Your task to perform on an android device: clear history in the chrome app Image 0: 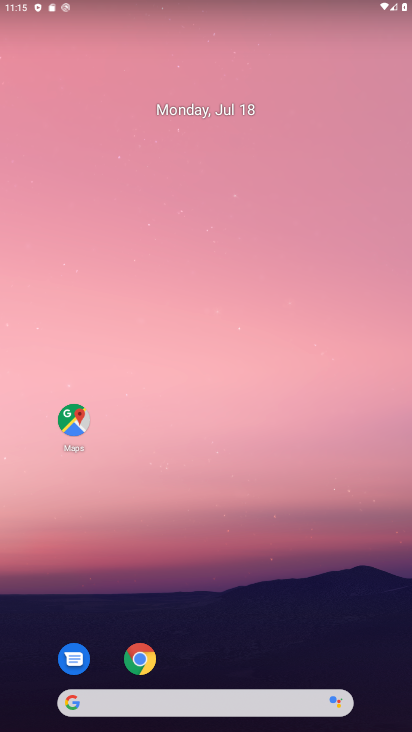
Step 0: drag from (335, 661) to (277, 189)
Your task to perform on an android device: clear history in the chrome app Image 1: 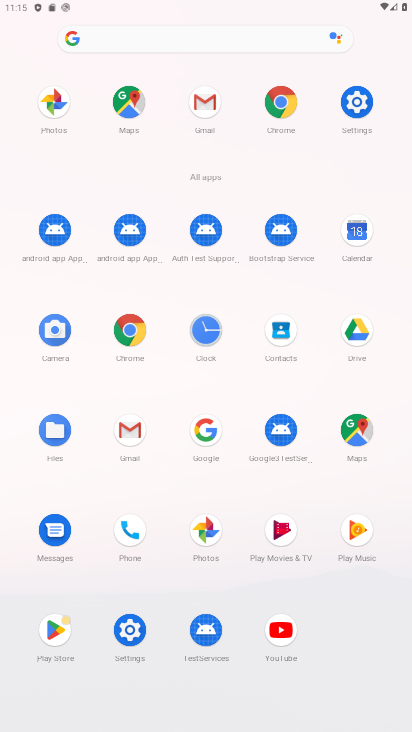
Step 1: click (279, 104)
Your task to perform on an android device: clear history in the chrome app Image 2: 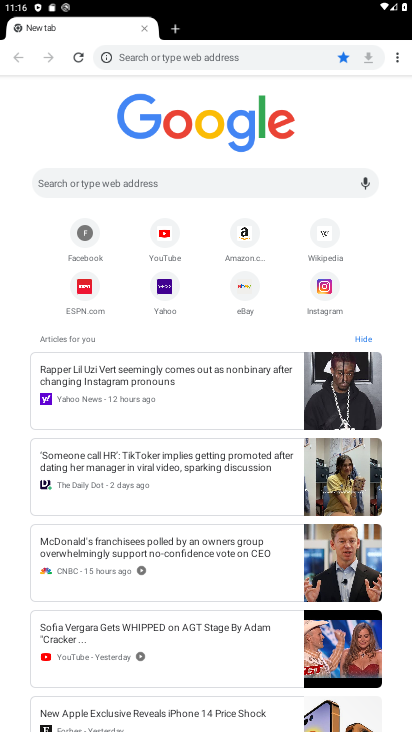
Step 2: click (402, 58)
Your task to perform on an android device: clear history in the chrome app Image 3: 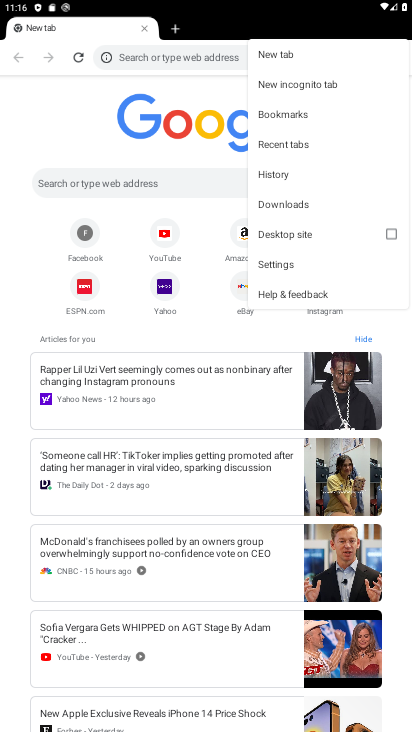
Step 3: click (306, 172)
Your task to perform on an android device: clear history in the chrome app Image 4: 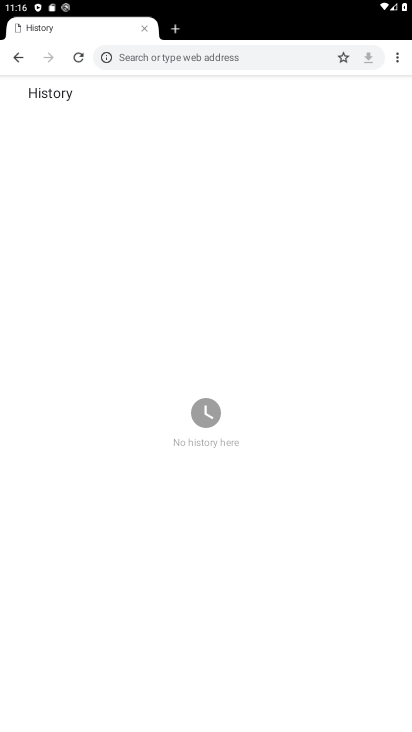
Step 4: task complete